Your task to perform on an android device: Search for the new Jordans on Nike.com Image 0: 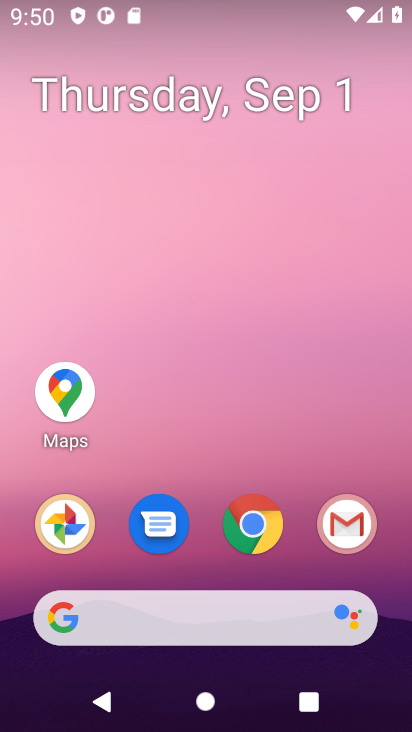
Step 0: drag from (389, 581) to (386, 97)
Your task to perform on an android device: Search for the new Jordans on Nike.com Image 1: 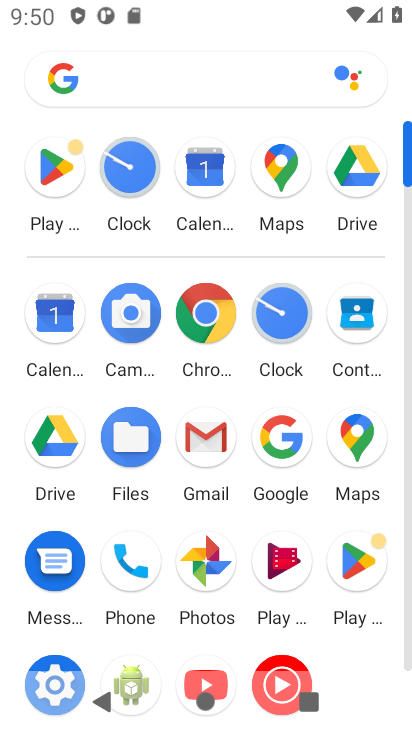
Step 1: click (214, 315)
Your task to perform on an android device: Search for the new Jordans on Nike.com Image 2: 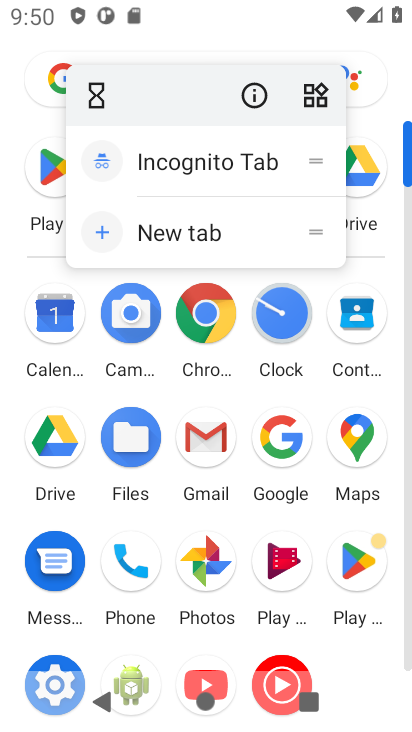
Step 2: click (210, 230)
Your task to perform on an android device: Search for the new Jordans on Nike.com Image 3: 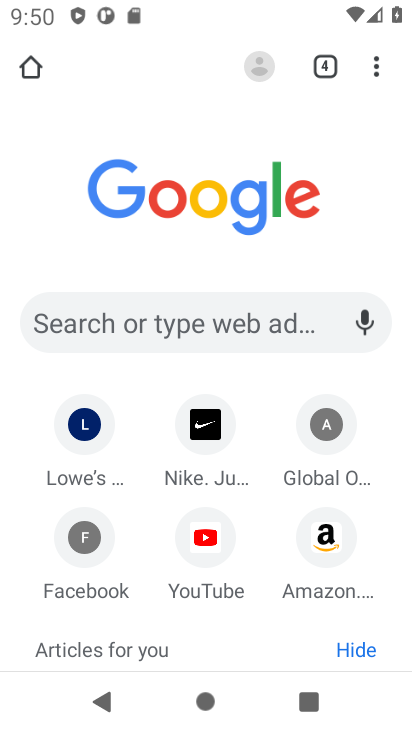
Step 3: click (276, 332)
Your task to perform on an android device: Search for the new Jordans on Nike.com Image 4: 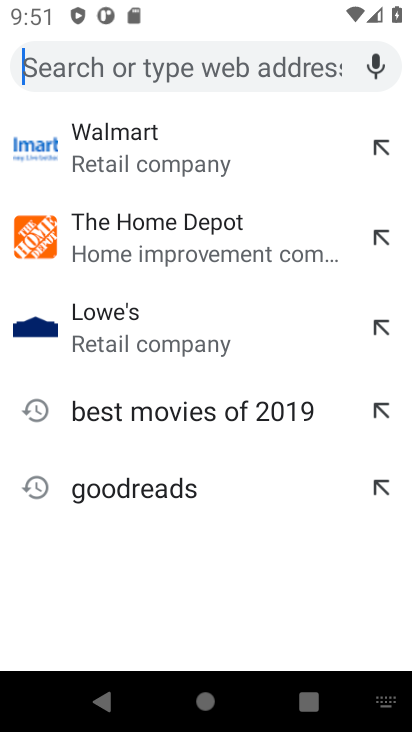
Step 4: type "nike.com"
Your task to perform on an android device: Search for the new Jordans on Nike.com Image 5: 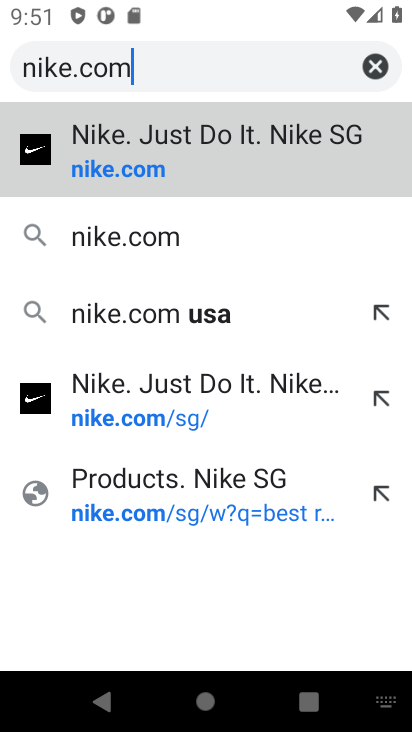
Step 5: press enter
Your task to perform on an android device: Search for the new Jordans on Nike.com Image 6: 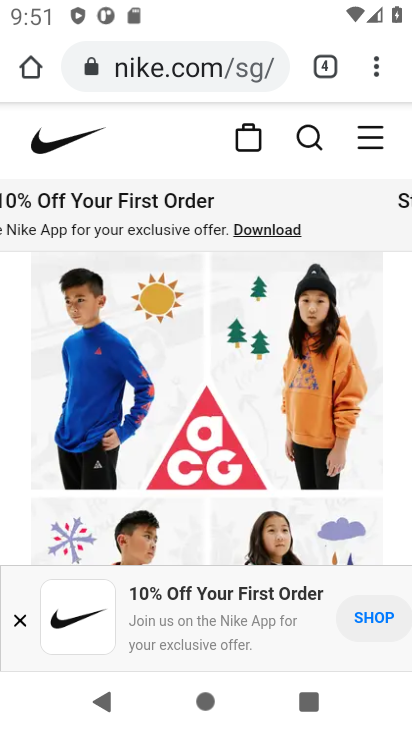
Step 6: click (307, 130)
Your task to perform on an android device: Search for the new Jordans on Nike.com Image 7: 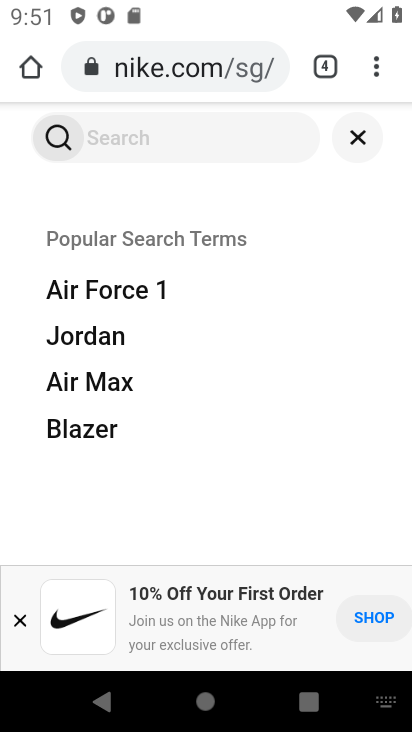
Step 7: press enter
Your task to perform on an android device: Search for the new Jordans on Nike.com Image 8: 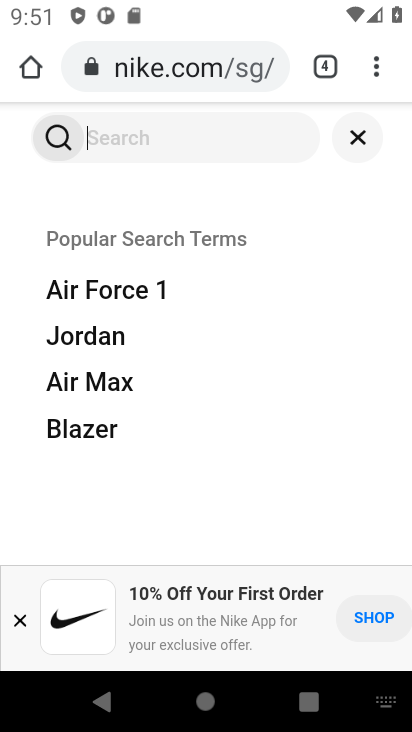
Step 8: type "jordans"
Your task to perform on an android device: Search for the new Jordans on Nike.com Image 9: 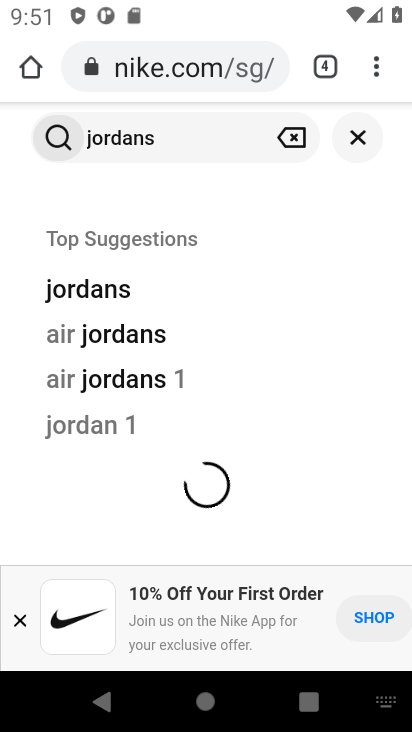
Step 9: click (58, 132)
Your task to perform on an android device: Search for the new Jordans on Nike.com Image 10: 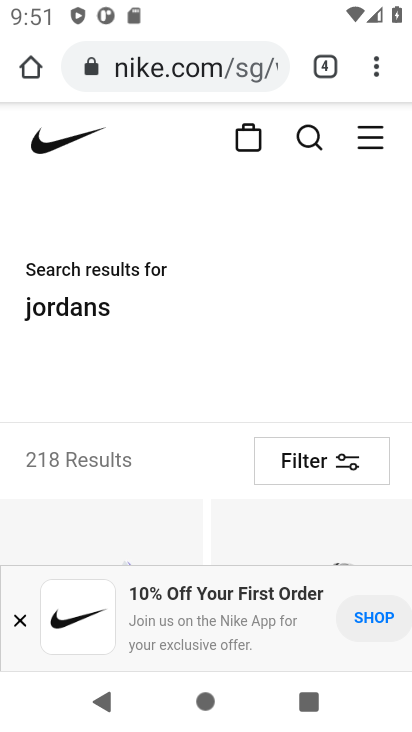
Step 10: task complete